Your task to perform on an android device: star an email in the gmail app Image 0: 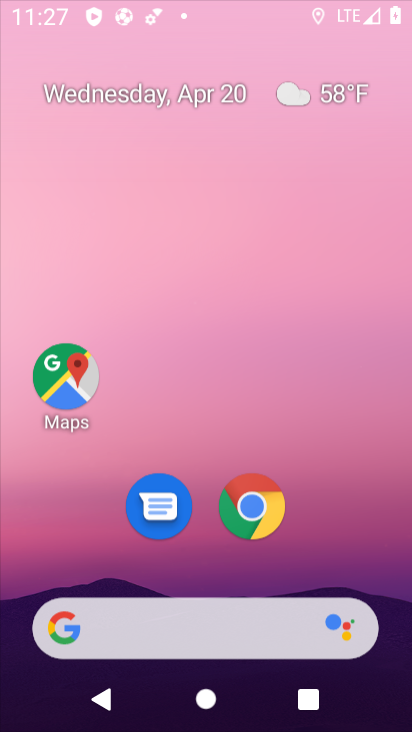
Step 0: drag from (366, 527) to (357, 389)
Your task to perform on an android device: star an email in the gmail app Image 1: 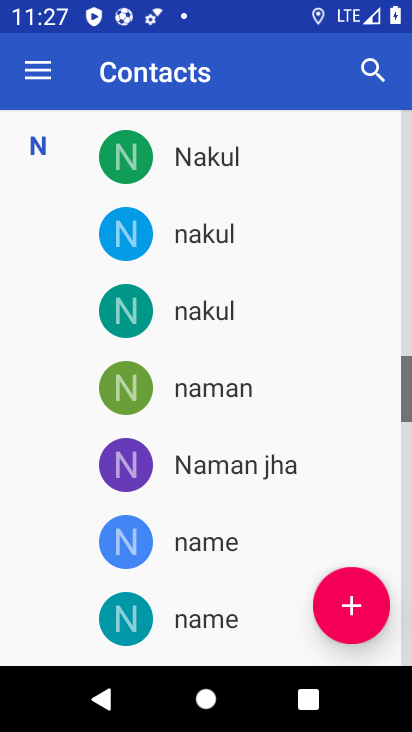
Step 1: press home button
Your task to perform on an android device: star an email in the gmail app Image 2: 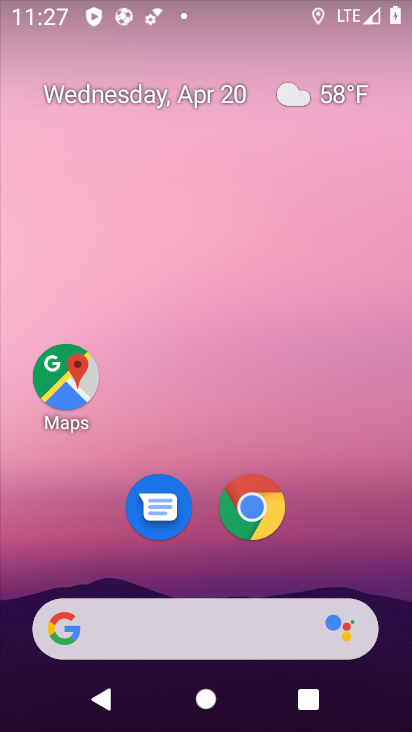
Step 2: drag from (360, 531) to (354, 97)
Your task to perform on an android device: star an email in the gmail app Image 3: 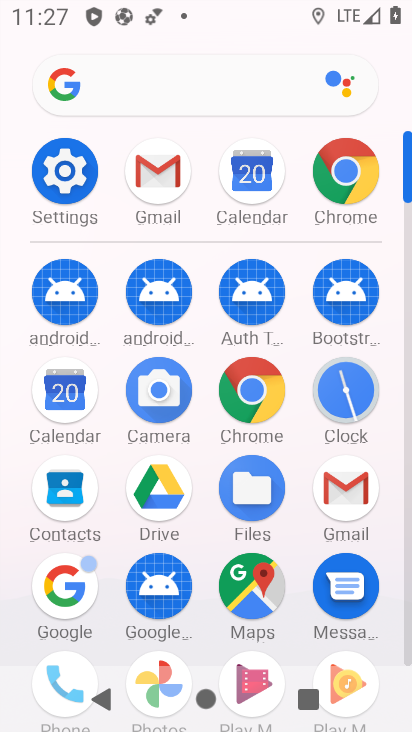
Step 3: click (366, 489)
Your task to perform on an android device: star an email in the gmail app Image 4: 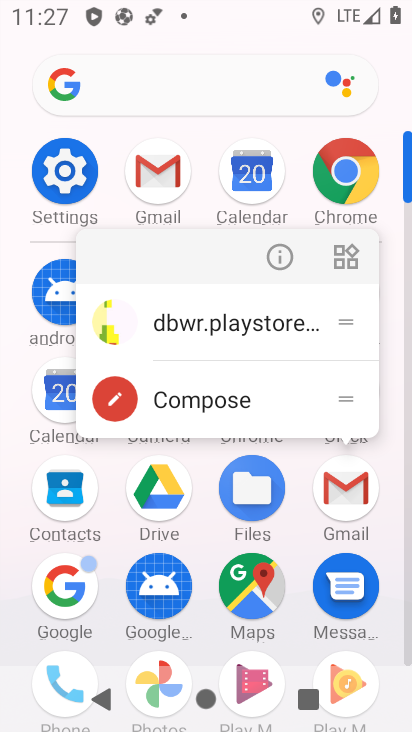
Step 4: click (346, 500)
Your task to perform on an android device: star an email in the gmail app Image 5: 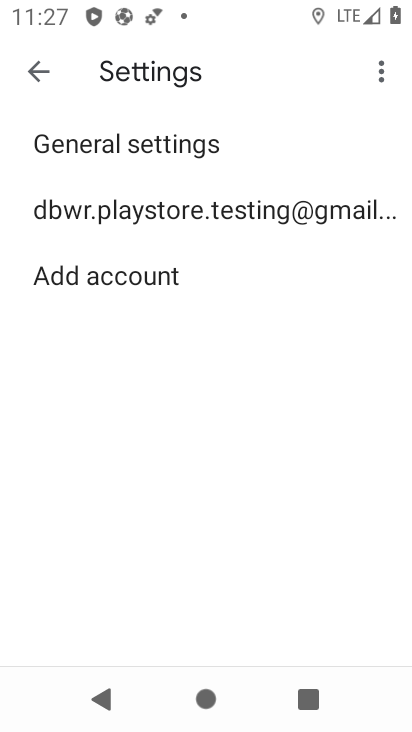
Step 5: click (43, 72)
Your task to perform on an android device: star an email in the gmail app Image 6: 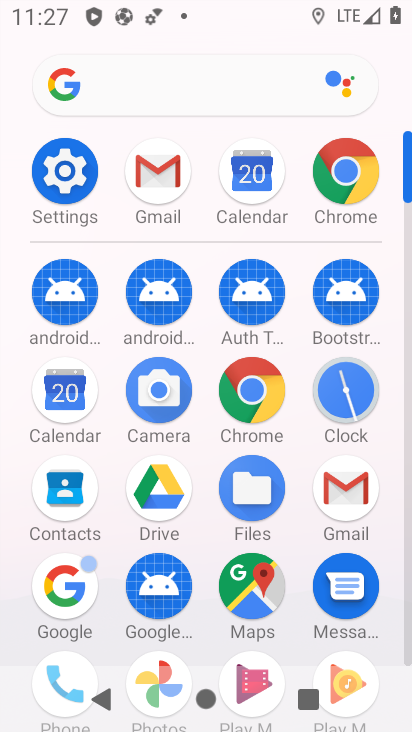
Step 6: click (338, 490)
Your task to perform on an android device: star an email in the gmail app Image 7: 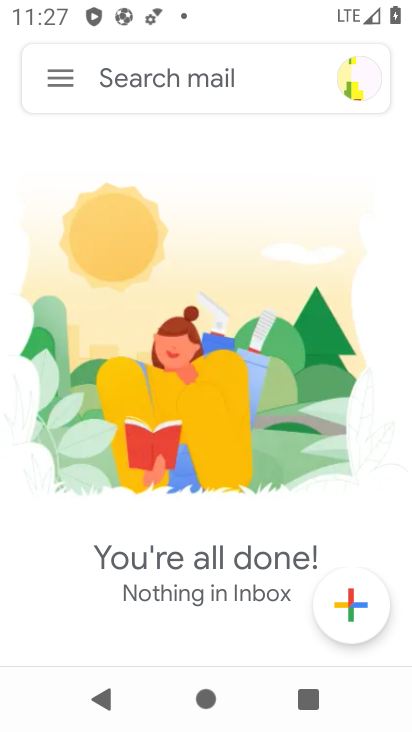
Step 7: task complete